Your task to perform on an android device: Open maps Image 0: 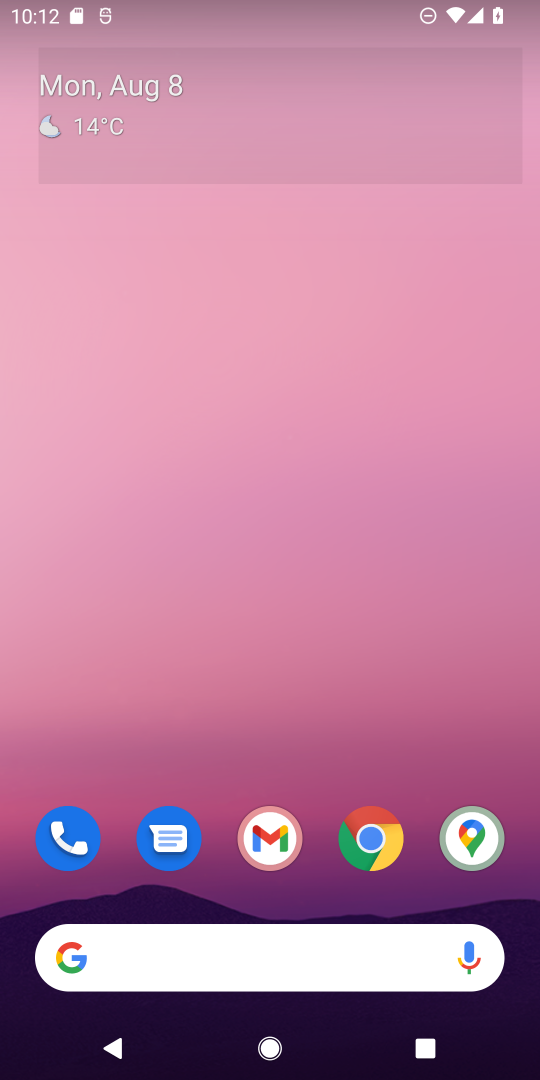
Step 0: click (468, 830)
Your task to perform on an android device: Open maps Image 1: 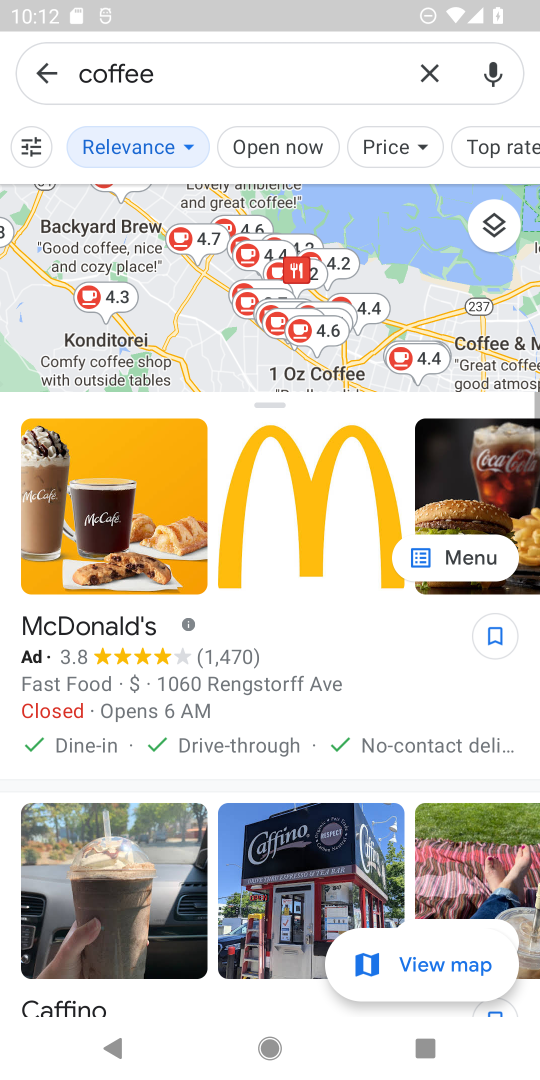
Step 1: click (41, 82)
Your task to perform on an android device: Open maps Image 2: 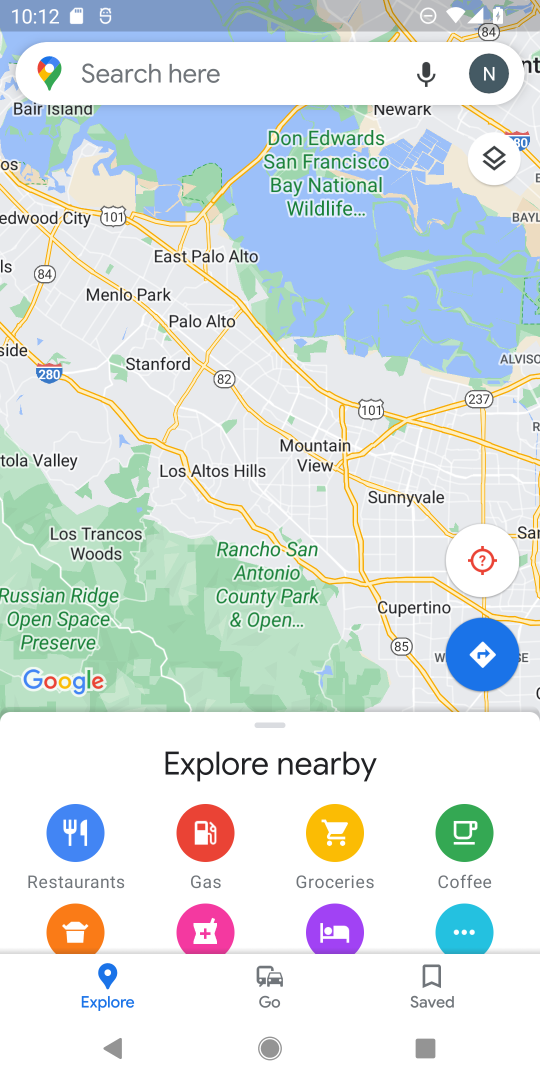
Step 2: task complete